Your task to perform on an android device: Open Yahoo.com Image 0: 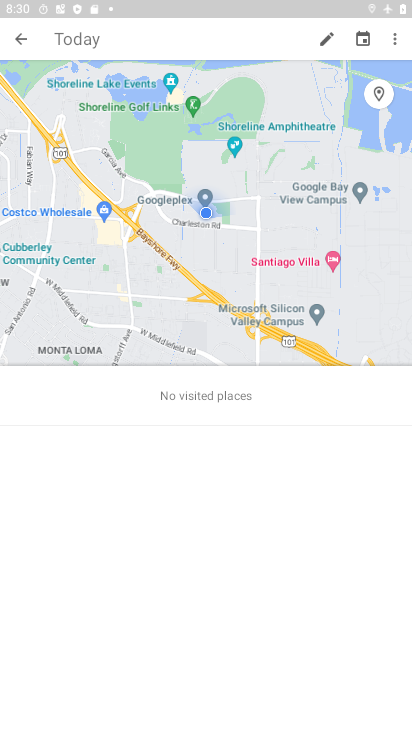
Step 0: press home button
Your task to perform on an android device: Open Yahoo.com Image 1: 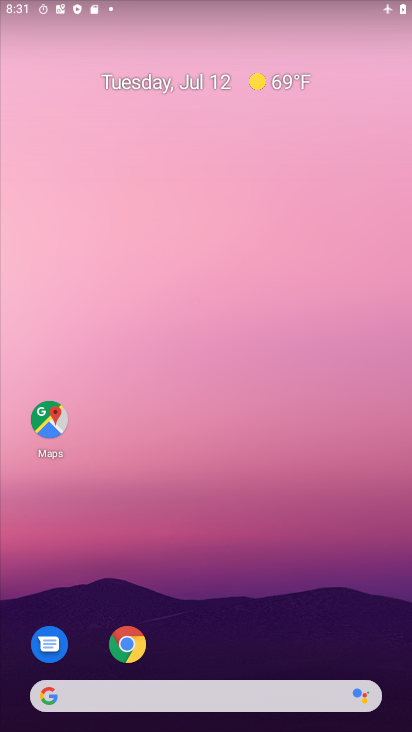
Step 1: click (127, 636)
Your task to perform on an android device: Open Yahoo.com Image 2: 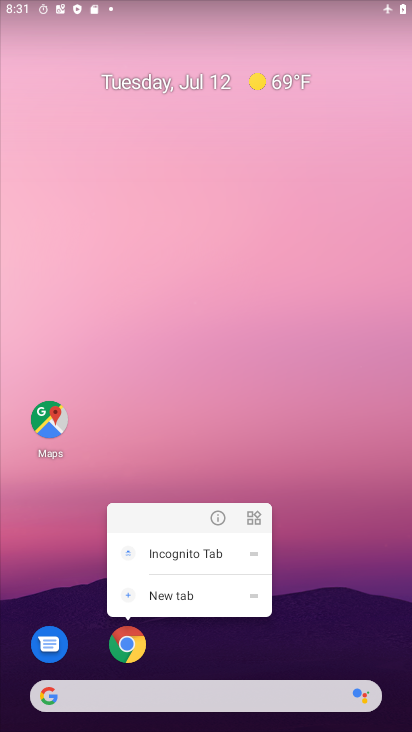
Step 2: click (127, 636)
Your task to perform on an android device: Open Yahoo.com Image 3: 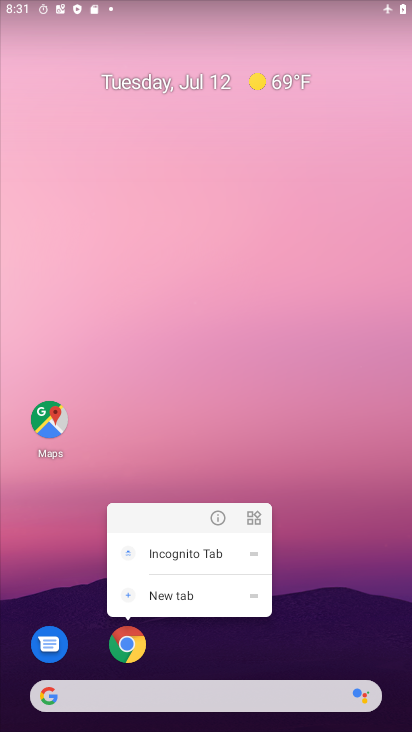
Step 3: click (127, 642)
Your task to perform on an android device: Open Yahoo.com Image 4: 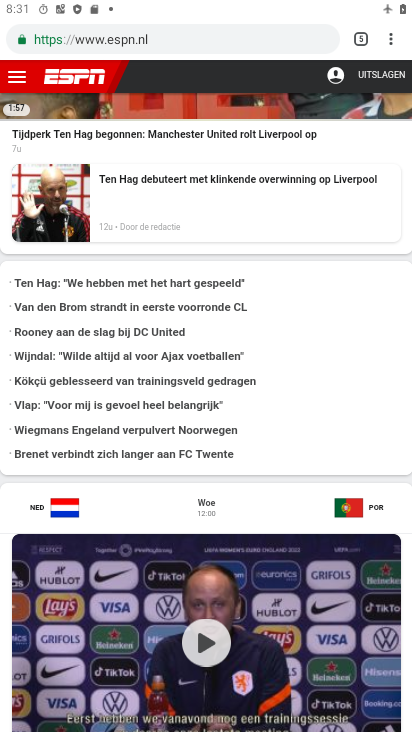
Step 4: click (354, 38)
Your task to perform on an android device: Open Yahoo.com Image 5: 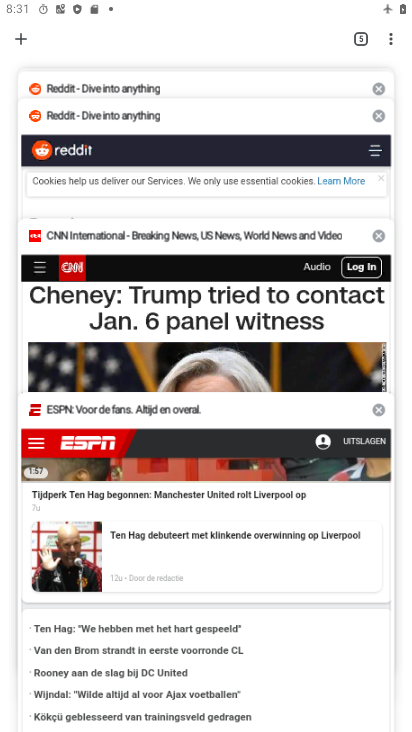
Step 5: click (25, 42)
Your task to perform on an android device: Open Yahoo.com Image 6: 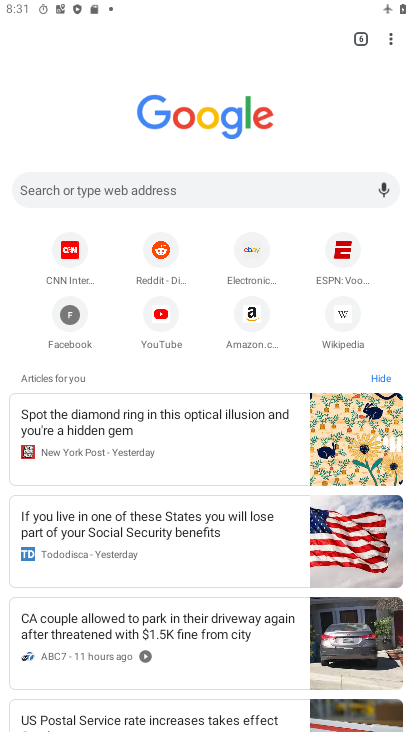
Step 6: click (129, 182)
Your task to perform on an android device: Open Yahoo.com Image 7: 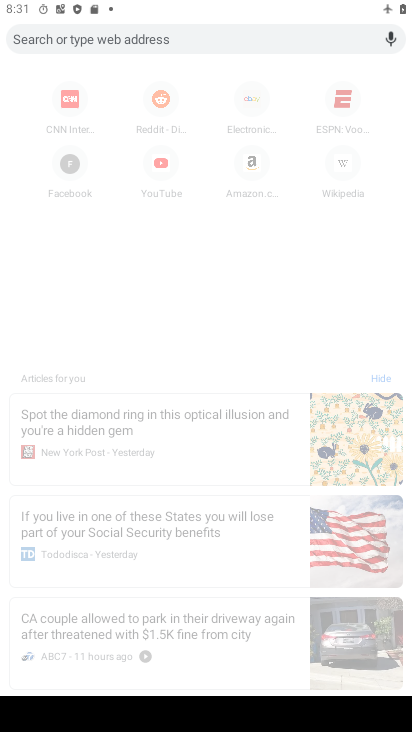
Step 7: type "yahoo.com"
Your task to perform on an android device: Open Yahoo.com Image 8: 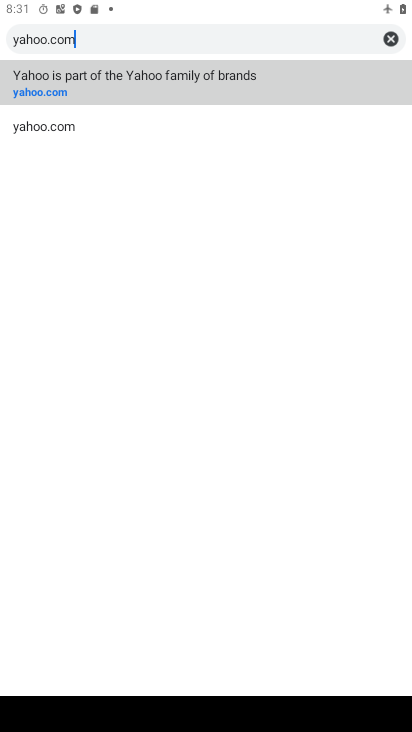
Step 8: click (78, 86)
Your task to perform on an android device: Open Yahoo.com Image 9: 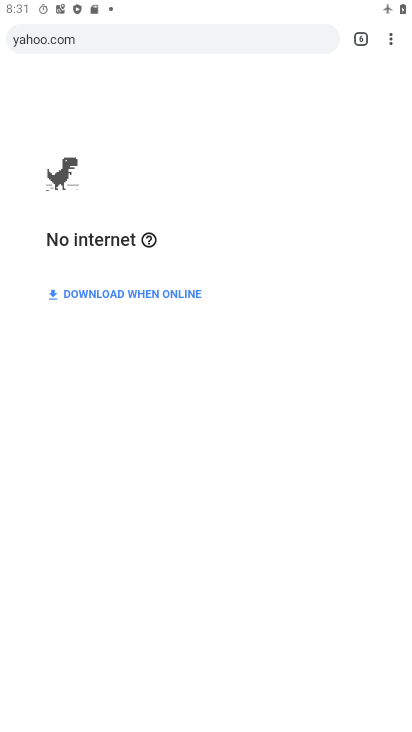
Step 9: task complete